Your task to perform on an android device: Open maps Image 0: 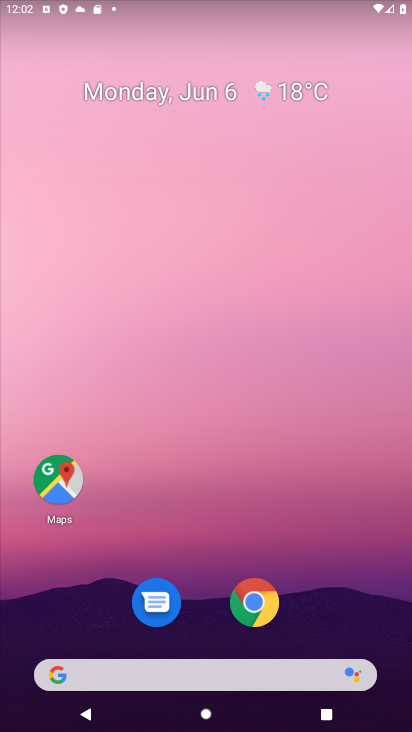
Step 0: click (60, 493)
Your task to perform on an android device: Open maps Image 1: 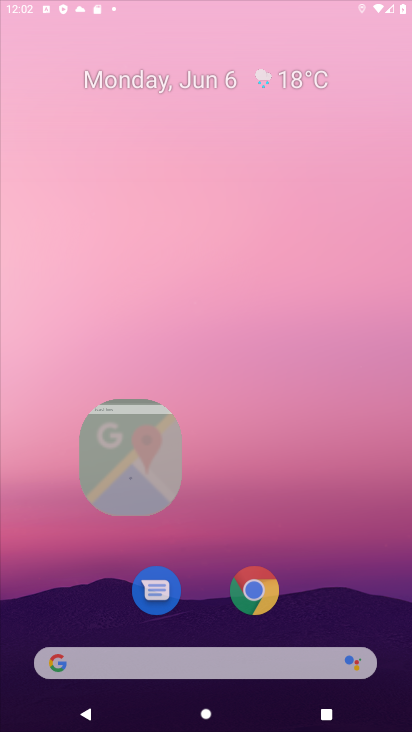
Step 1: task complete